Your task to perform on an android device: Open eBay Image 0: 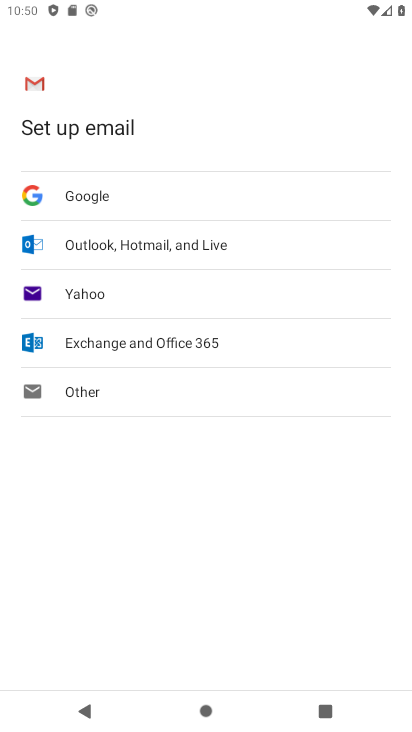
Step 0: press home button
Your task to perform on an android device: Open eBay Image 1: 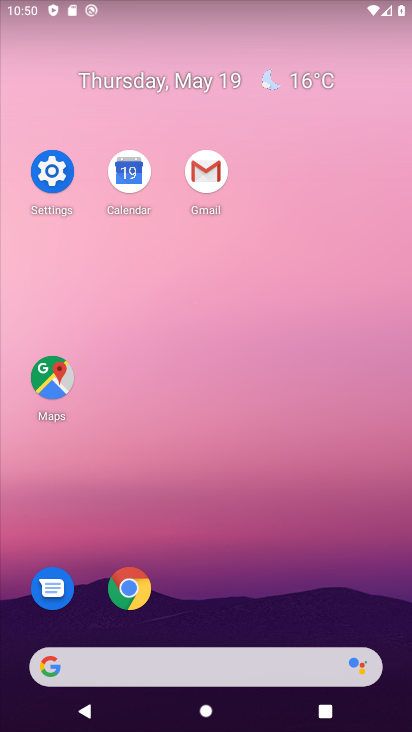
Step 1: click (120, 587)
Your task to perform on an android device: Open eBay Image 2: 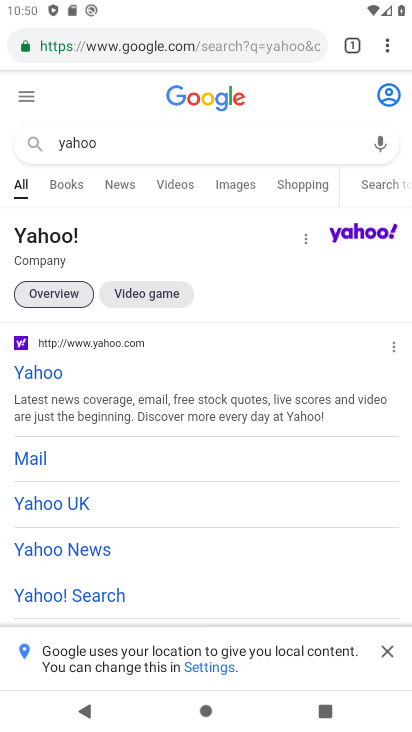
Step 2: click (260, 141)
Your task to perform on an android device: Open eBay Image 3: 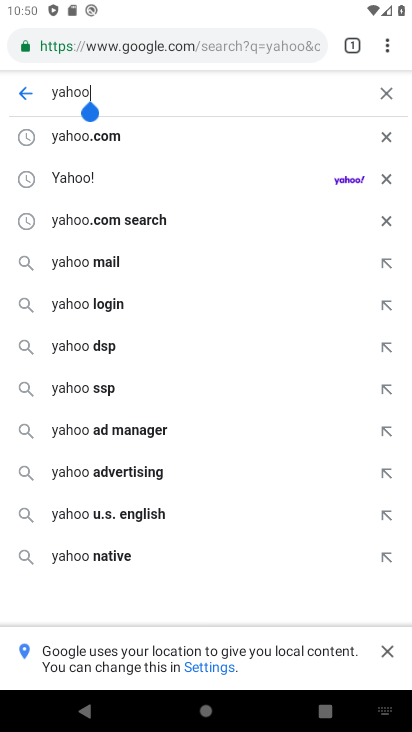
Step 3: click (381, 87)
Your task to perform on an android device: Open eBay Image 4: 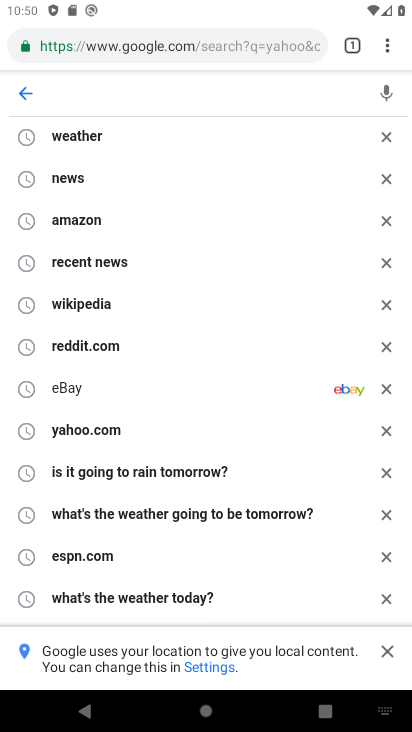
Step 4: type "ebay"
Your task to perform on an android device: Open eBay Image 5: 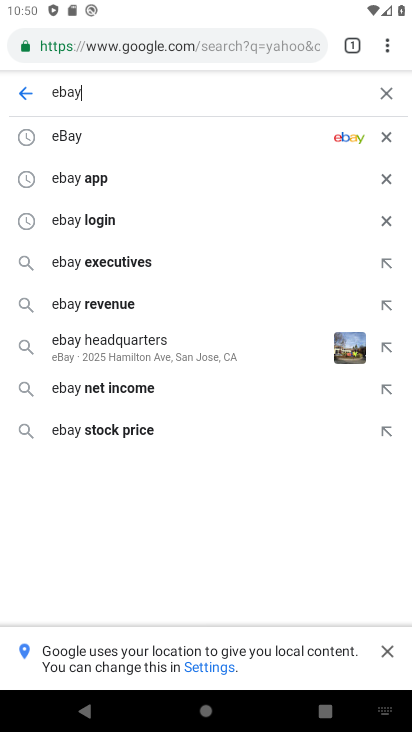
Step 5: click (123, 140)
Your task to perform on an android device: Open eBay Image 6: 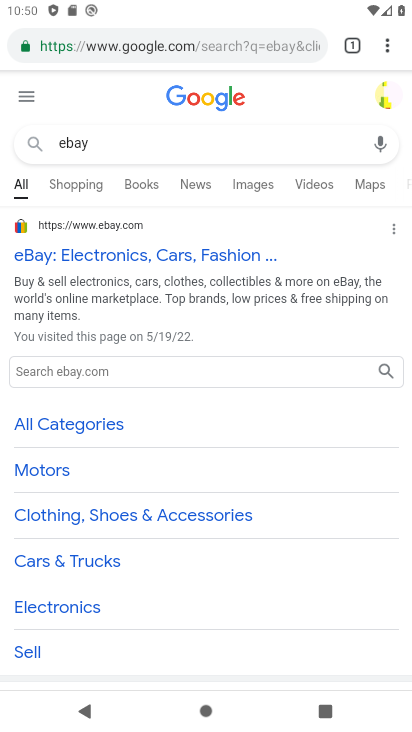
Step 6: click (96, 252)
Your task to perform on an android device: Open eBay Image 7: 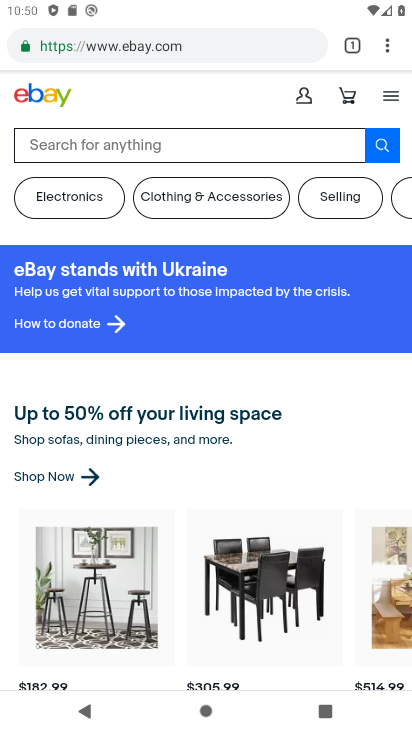
Step 7: task complete